Your task to perform on an android device: Go to wifi settings Image 0: 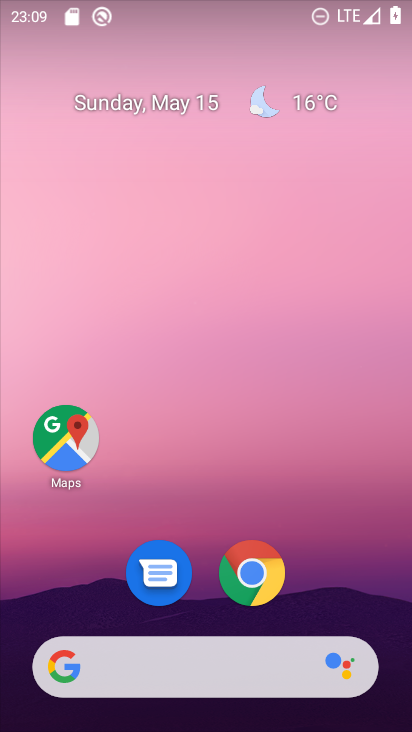
Step 0: press home button
Your task to perform on an android device: Go to wifi settings Image 1: 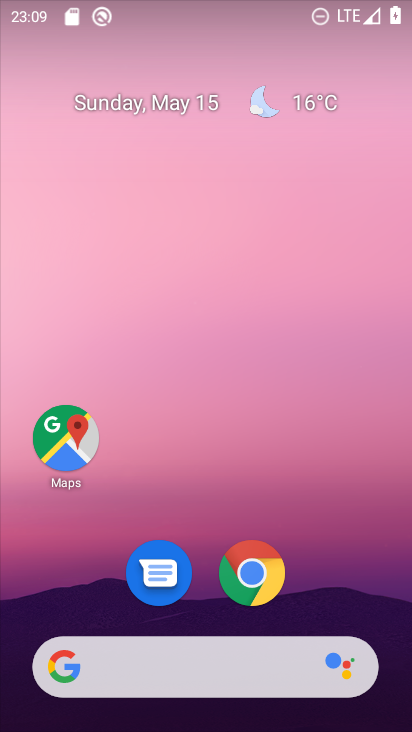
Step 1: drag from (264, 7) to (240, 592)
Your task to perform on an android device: Go to wifi settings Image 2: 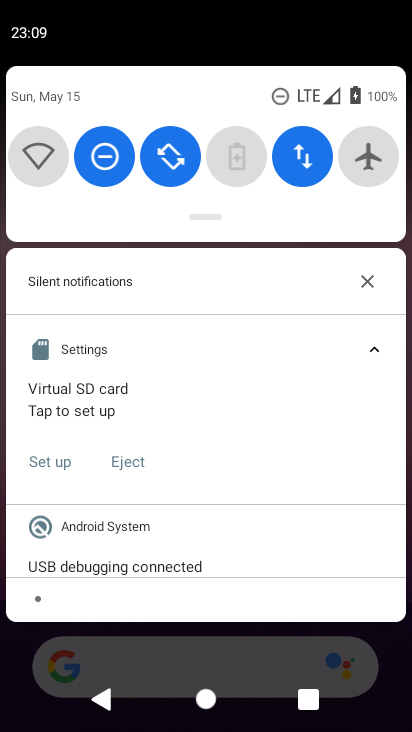
Step 2: click (37, 143)
Your task to perform on an android device: Go to wifi settings Image 3: 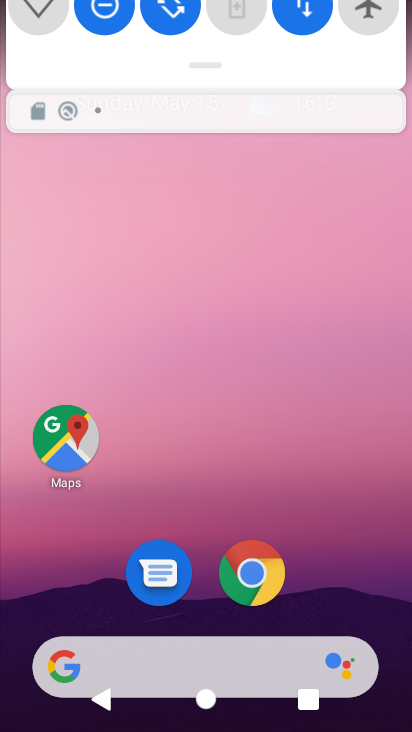
Step 3: click (37, 143)
Your task to perform on an android device: Go to wifi settings Image 4: 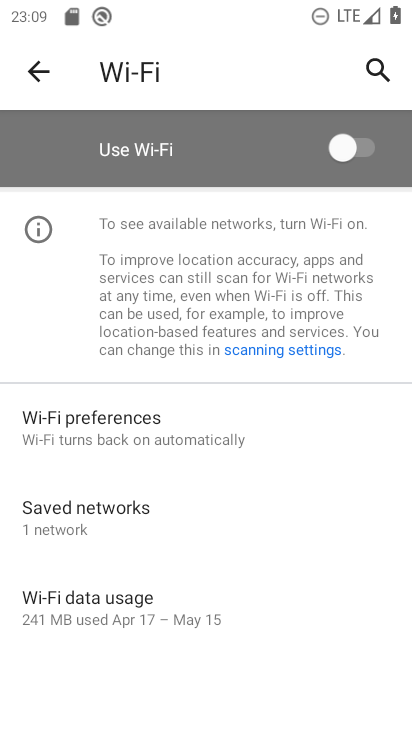
Step 4: task complete